Your task to perform on an android device: change timer sound Image 0: 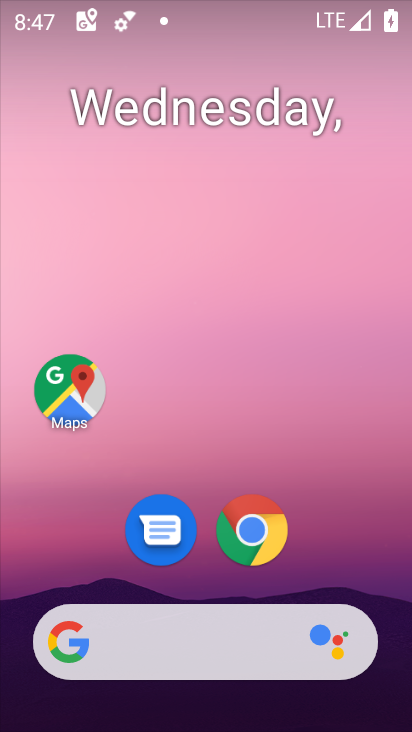
Step 0: drag from (391, 623) to (304, 75)
Your task to perform on an android device: change timer sound Image 1: 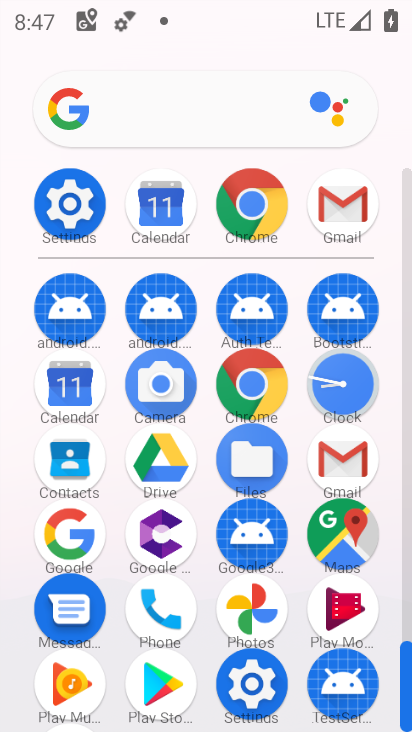
Step 1: click (254, 698)
Your task to perform on an android device: change timer sound Image 2: 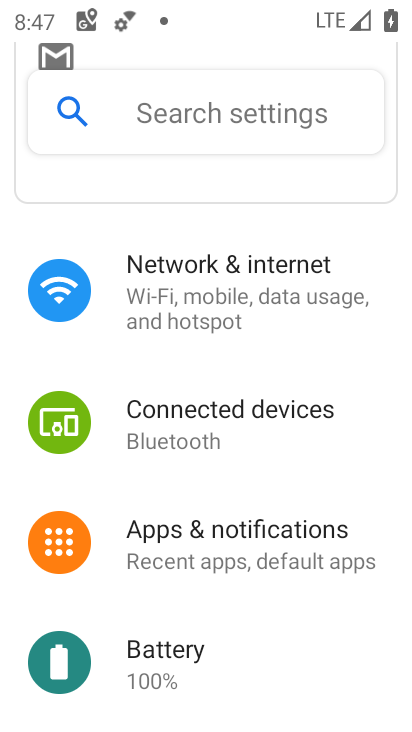
Step 2: drag from (240, 678) to (209, 167)
Your task to perform on an android device: change timer sound Image 3: 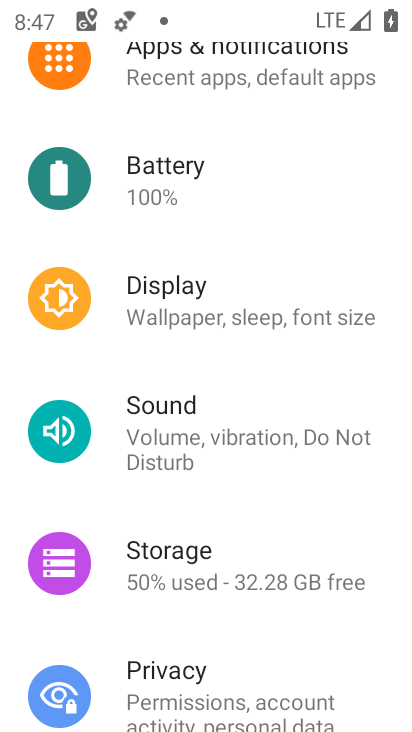
Step 3: press home button
Your task to perform on an android device: change timer sound Image 4: 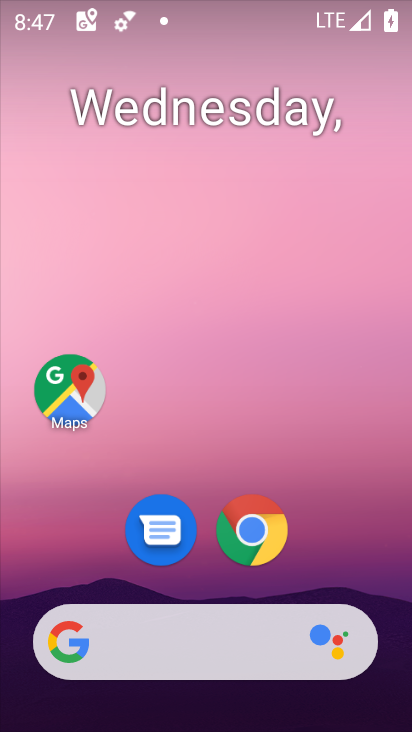
Step 4: drag from (386, 590) to (302, 75)
Your task to perform on an android device: change timer sound Image 5: 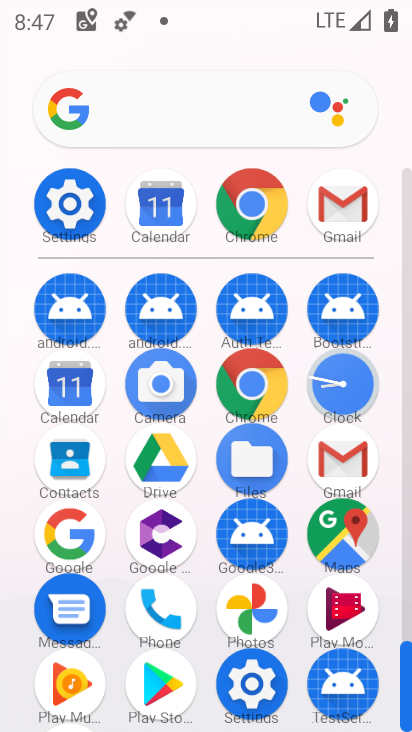
Step 5: click (348, 387)
Your task to perform on an android device: change timer sound Image 6: 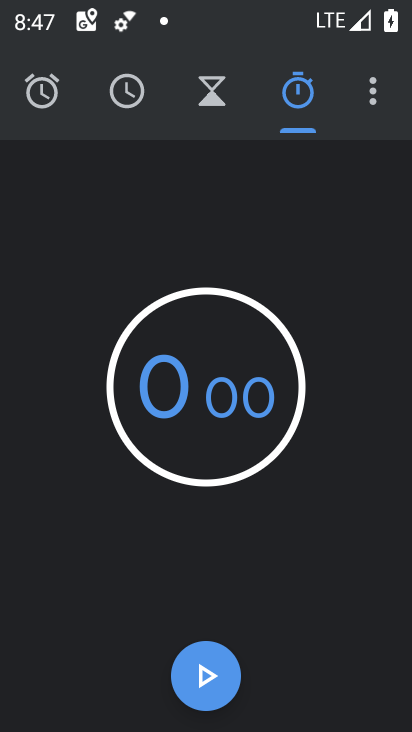
Step 6: click (368, 80)
Your task to perform on an android device: change timer sound Image 7: 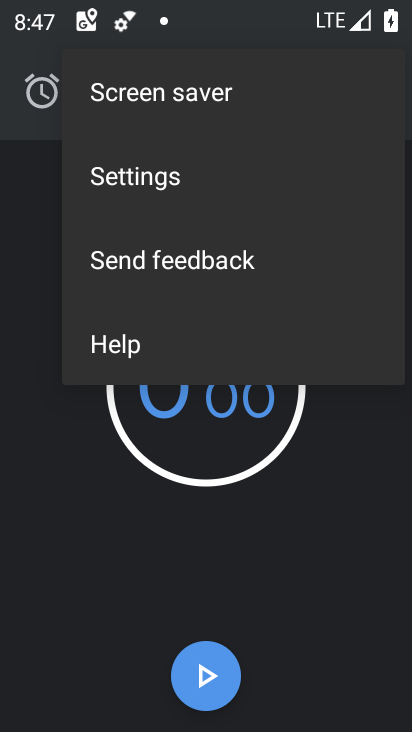
Step 7: click (164, 181)
Your task to perform on an android device: change timer sound Image 8: 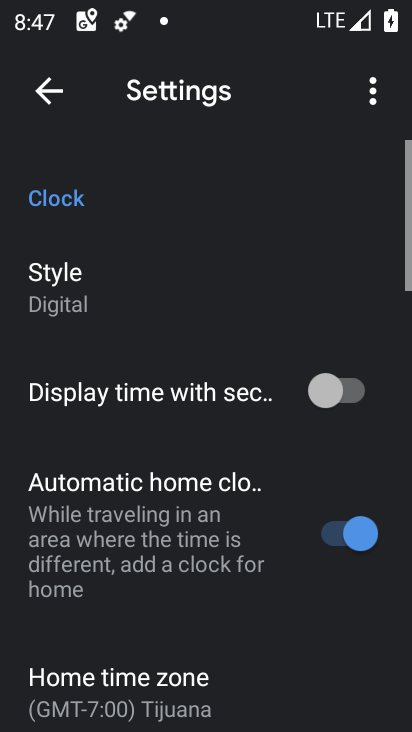
Step 8: drag from (144, 622) to (216, 58)
Your task to perform on an android device: change timer sound Image 9: 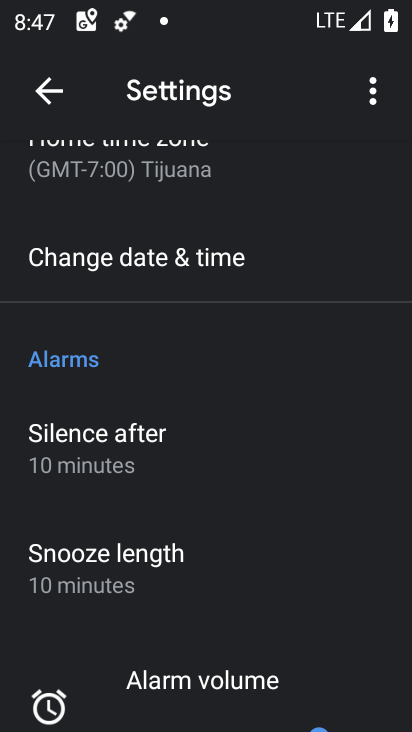
Step 9: drag from (154, 578) to (129, 152)
Your task to perform on an android device: change timer sound Image 10: 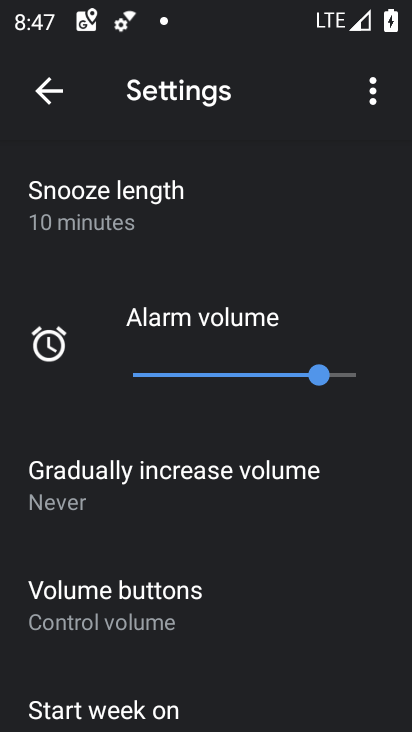
Step 10: drag from (184, 612) to (197, 197)
Your task to perform on an android device: change timer sound Image 11: 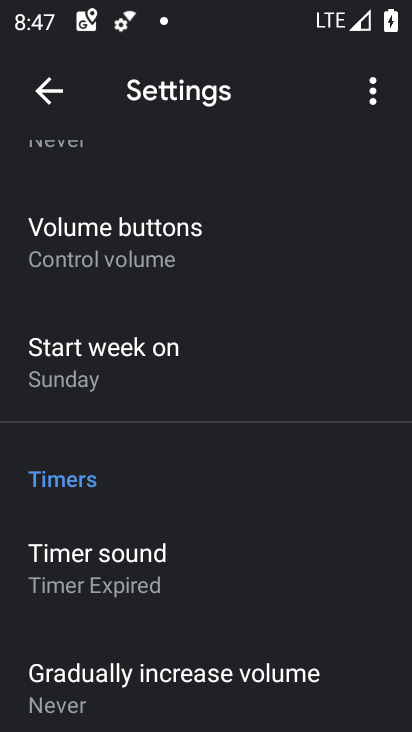
Step 11: click (174, 569)
Your task to perform on an android device: change timer sound Image 12: 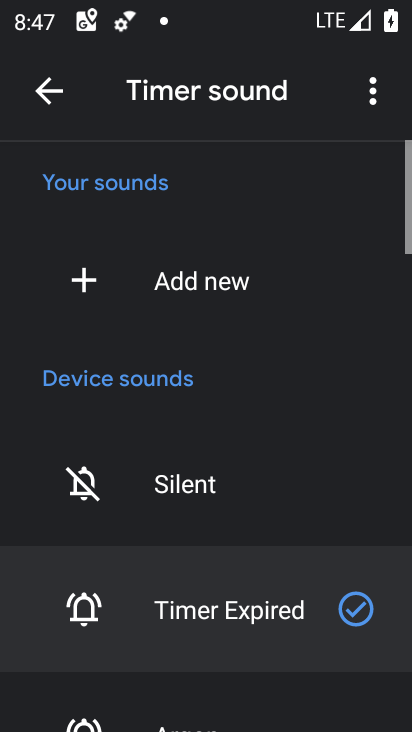
Step 12: click (246, 696)
Your task to perform on an android device: change timer sound Image 13: 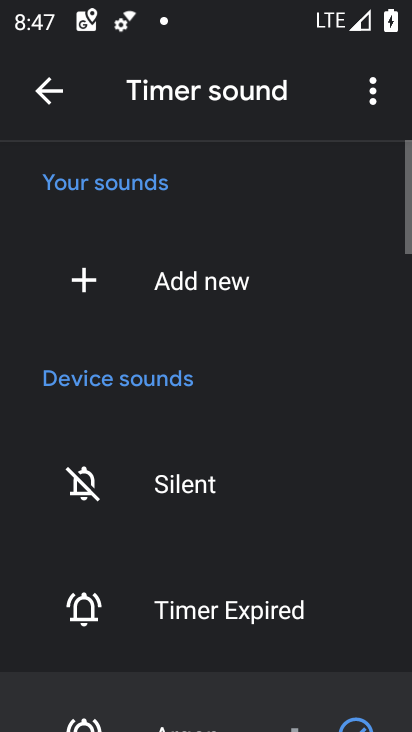
Step 13: task complete